Your task to perform on an android device: make emails show in primary in the gmail app Image 0: 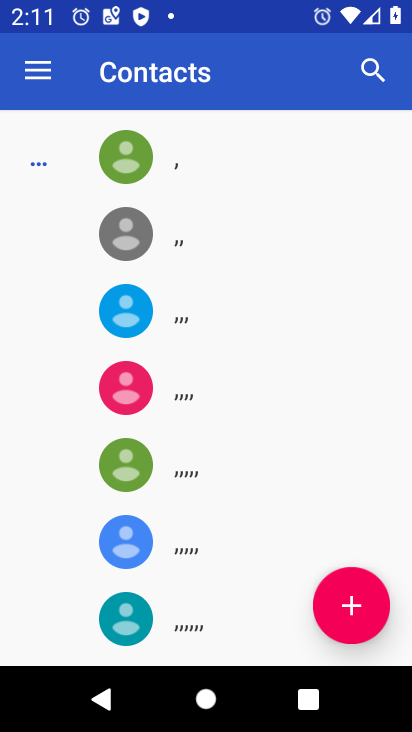
Step 0: press home button
Your task to perform on an android device: make emails show in primary in the gmail app Image 1: 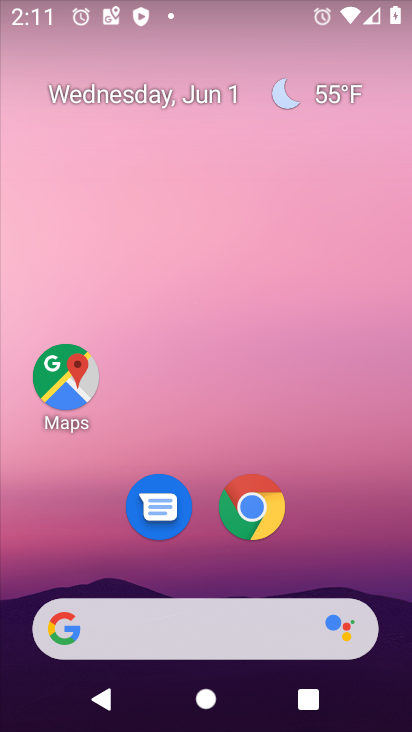
Step 1: drag from (350, 583) to (371, 6)
Your task to perform on an android device: make emails show in primary in the gmail app Image 2: 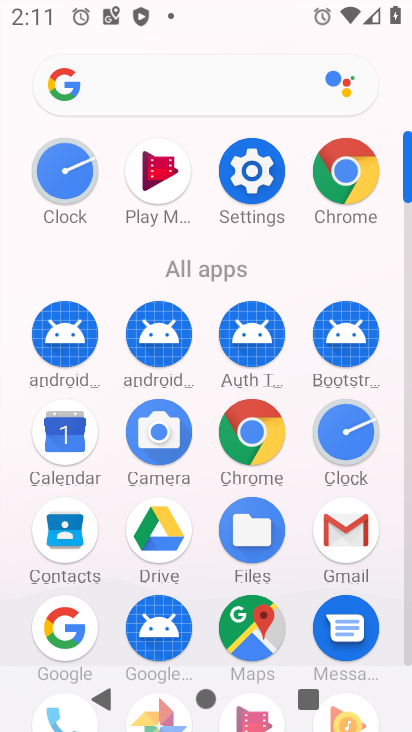
Step 2: click (345, 533)
Your task to perform on an android device: make emails show in primary in the gmail app Image 3: 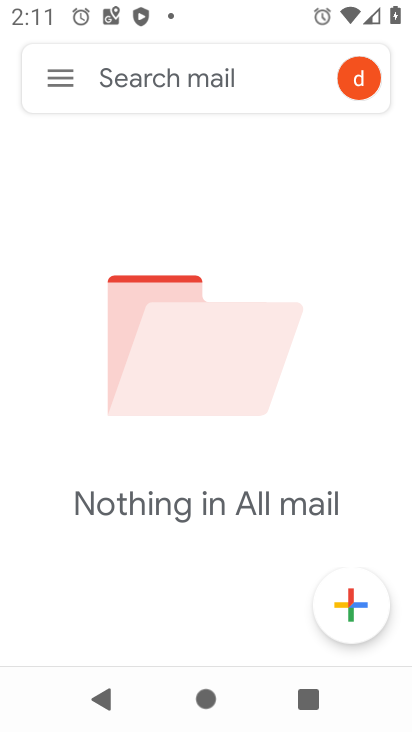
Step 3: click (60, 81)
Your task to perform on an android device: make emails show in primary in the gmail app Image 4: 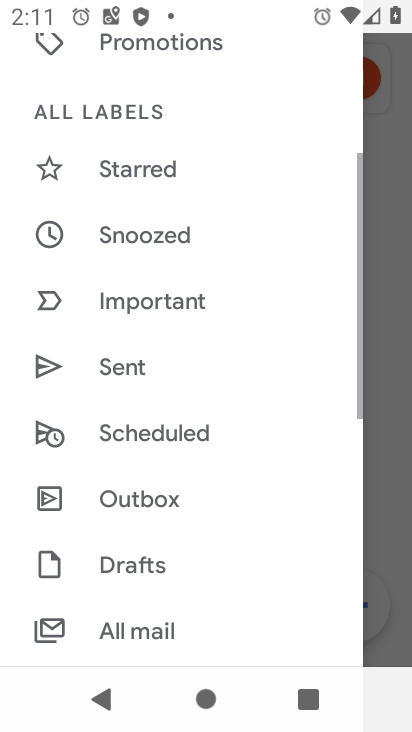
Step 4: drag from (227, 582) to (238, 161)
Your task to perform on an android device: make emails show in primary in the gmail app Image 5: 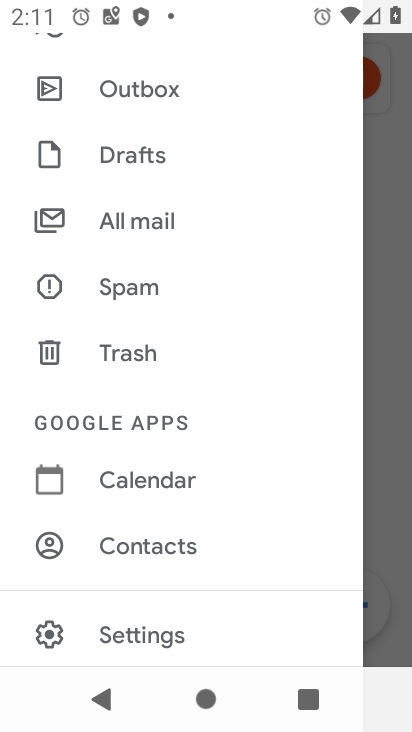
Step 5: click (128, 637)
Your task to perform on an android device: make emails show in primary in the gmail app Image 6: 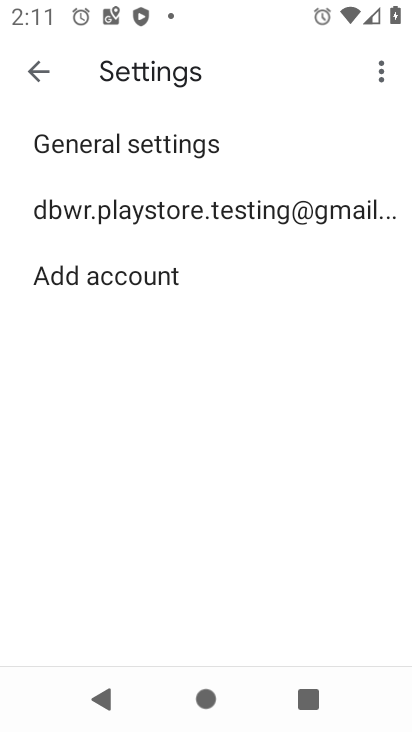
Step 6: click (171, 223)
Your task to perform on an android device: make emails show in primary in the gmail app Image 7: 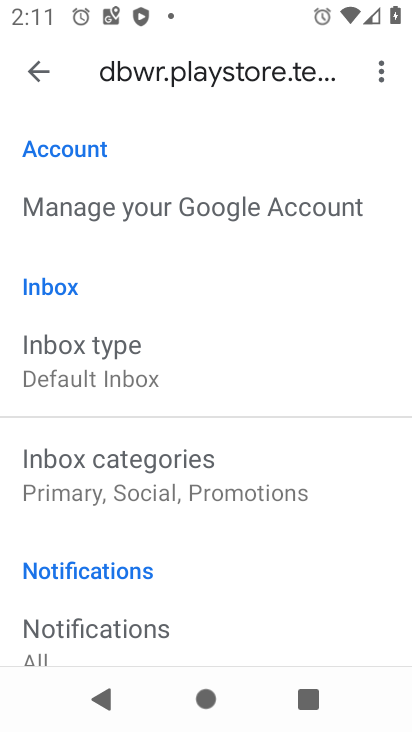
Step 7: click (155, 485)
Your task to perform on an android device: make emails show in primary in the gmail app Image 8: 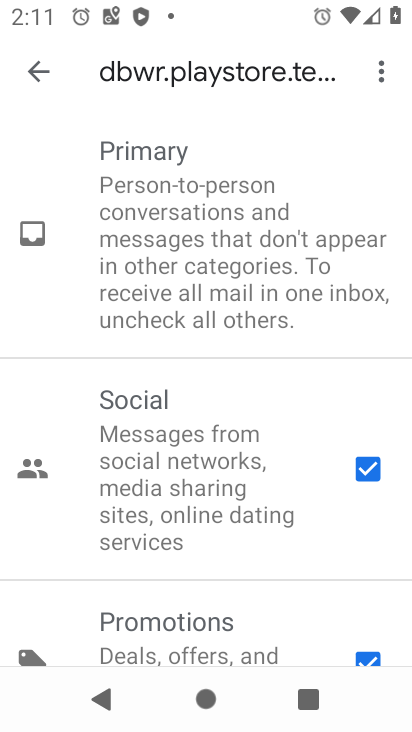
Step 8: click (365, 467)
Your task to perform on an android device: make emails show in primary in the gmail app Image 9: 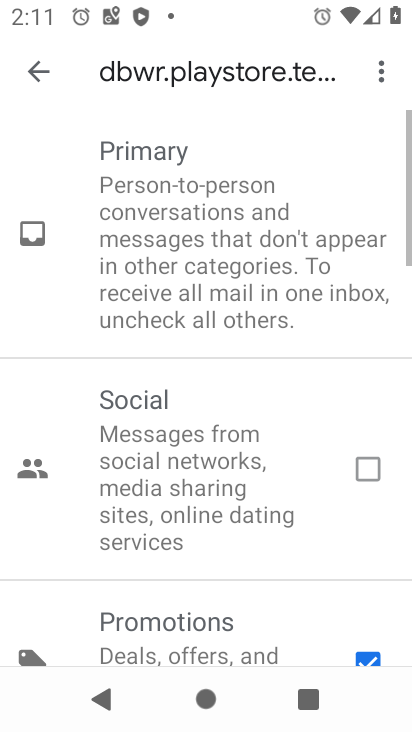
Step 9: click (353, 646)
Your task to perform on an android device: make emails show in primary in the gmail app Image 10: 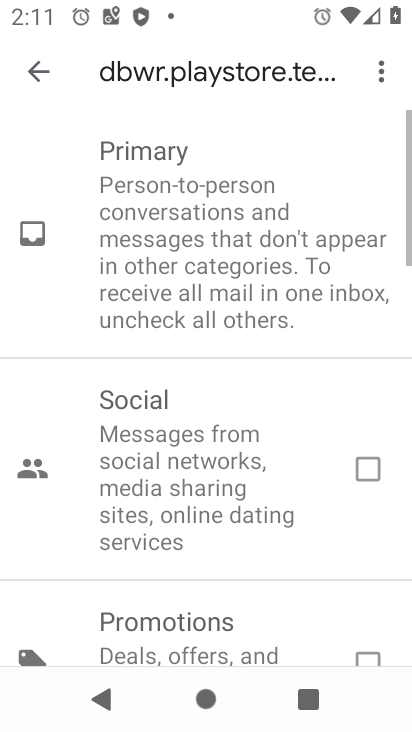
Step 10: drag from (185, 555) to (195, 176)
Your task to perform on an android device: make emails show in primary in the gmail app Image 11: 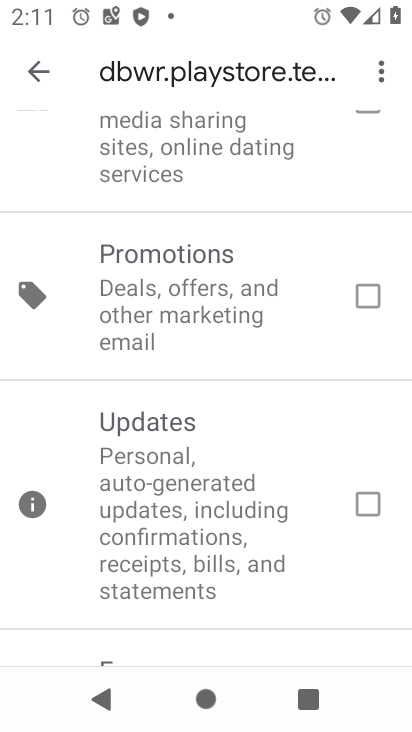
Step 11: drag from (177, 493) to (183, 239)
Your task to perform on an android device: make emails show in primary in the gmail app Image 12: 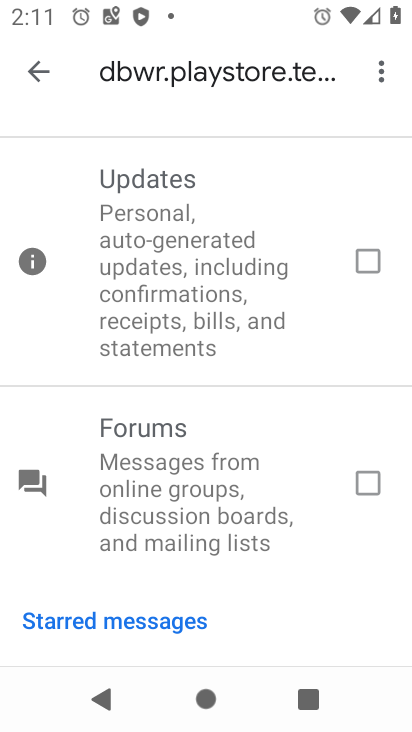
Step 12: click (51, 70)
Your task to perform on an android device: make emails show in primary in the gmail app Image 13: 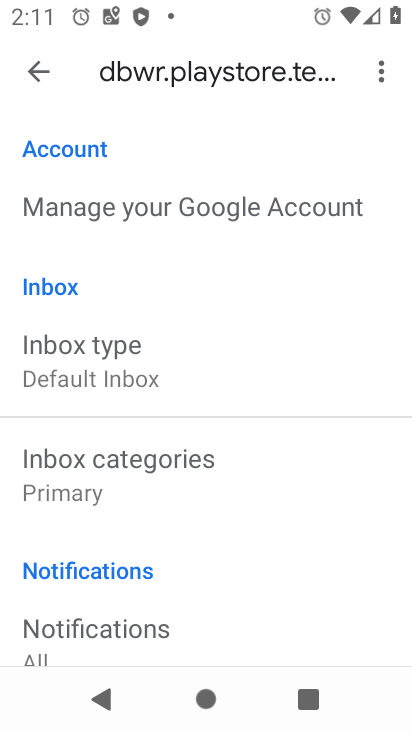
Step 13: task complete